Your task to perform on an android device: Open calendar and show me the first week of next month Image 0: 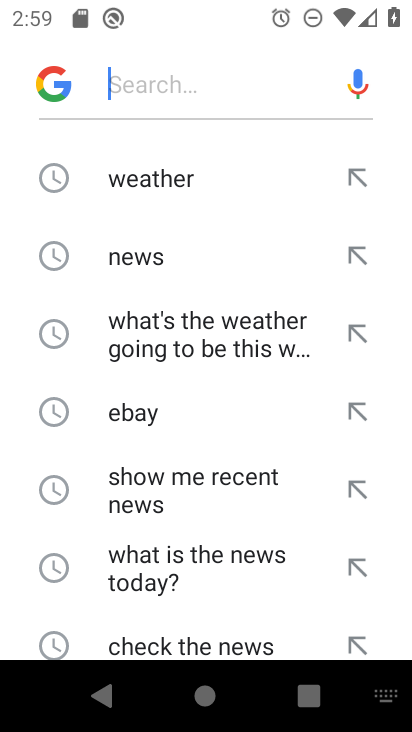
Step 0: press home button
Your task to perform on an android device: Open calendar and show me the first week of next month Image 1: 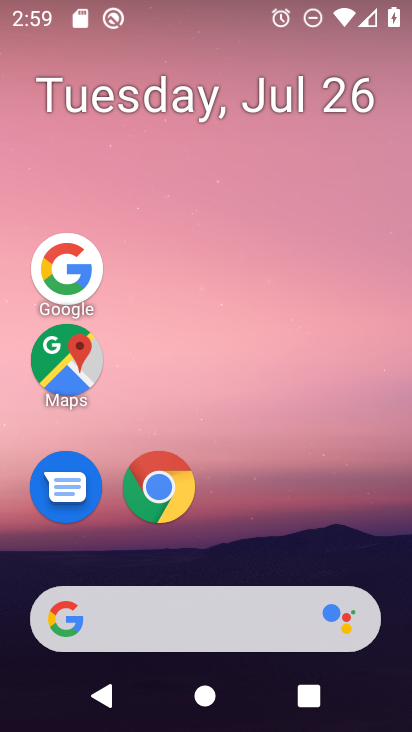
Step 1: drag from (249, 558) to (216, 209)
Your task to perform on an android device: Open calendar and show me the first week of next month Image 2: 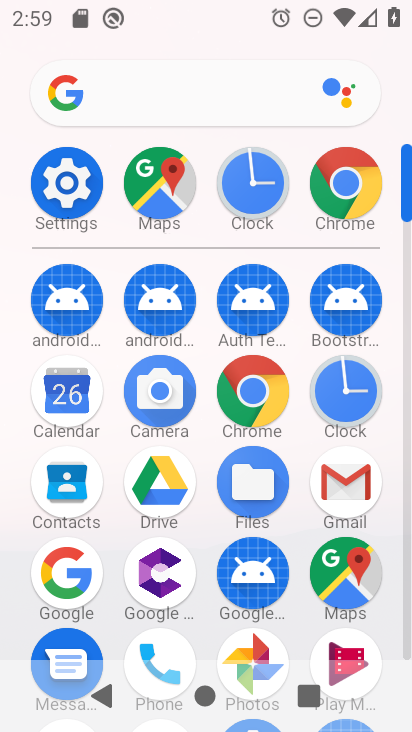
Step 2: click (64, 404)
Your task to perform on an android device: Open calendar and show me the first week of next month Image 3: 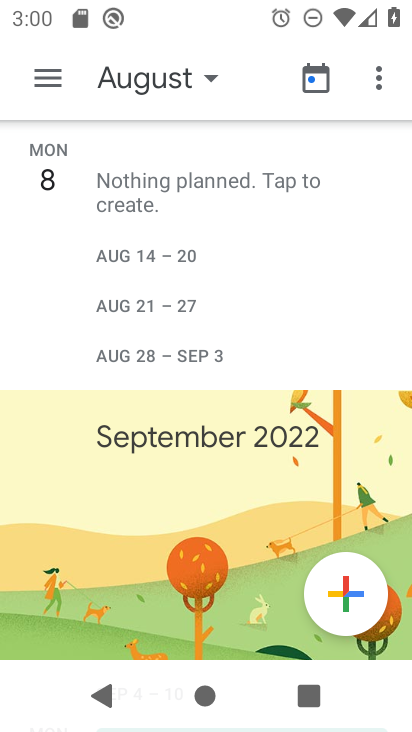
Step 3: click (170, 99)
Your task to perform on an android device: Open calendar and show me the first week of next month Image 4: 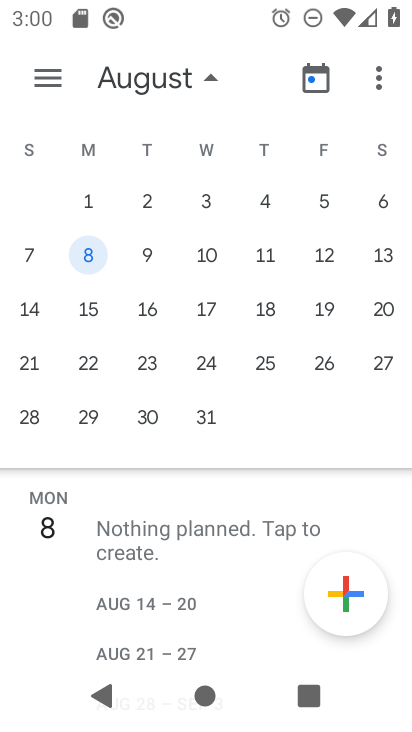
Step 4: click (87, 200)
Your task to perform on an android device: Open calendar and show me the first week of next month Image 5: 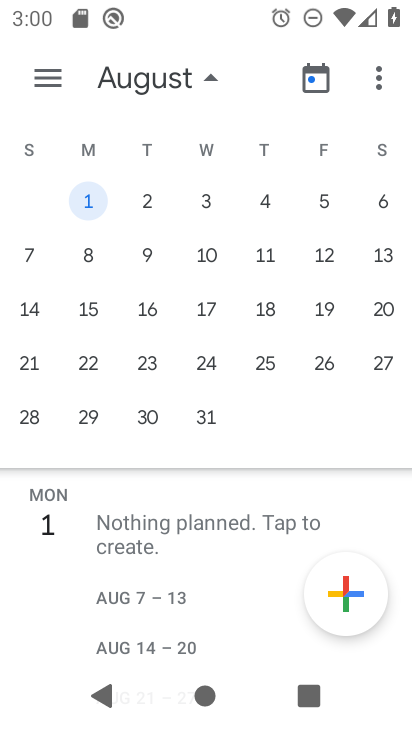
Step 5: task complete